Your task to perform on an android device: turn on data saver in the chrome app Image 0: 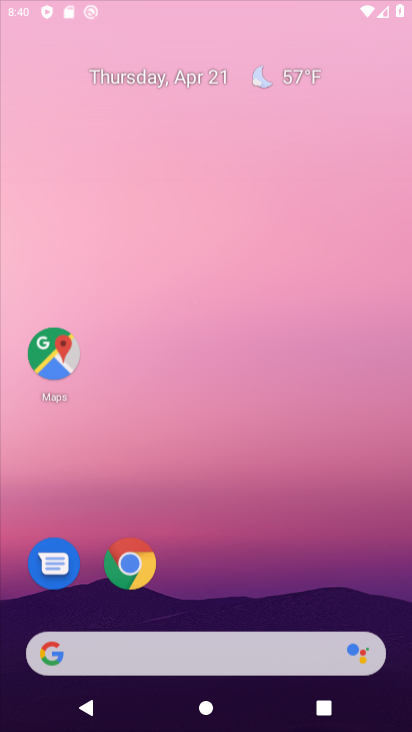
Step 0: drag from (212, 597) to (174, 6)
Your task to perform on an android device: turn on data saver in the chrome app Image 1: 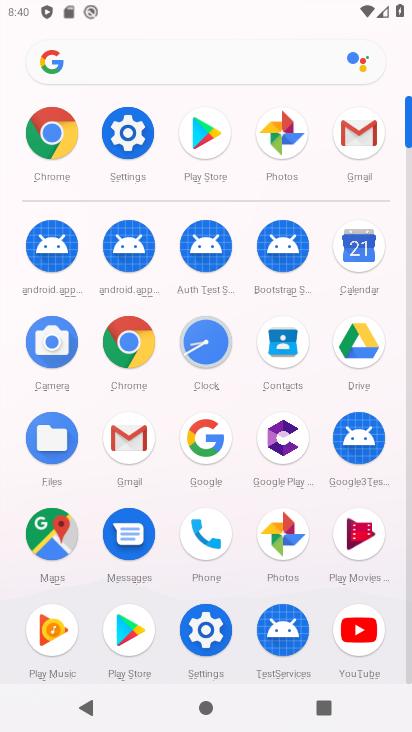
Step 1: click (122, 356)
Your task to perform on an android device: turn on data saver in the chrome app Image 2: 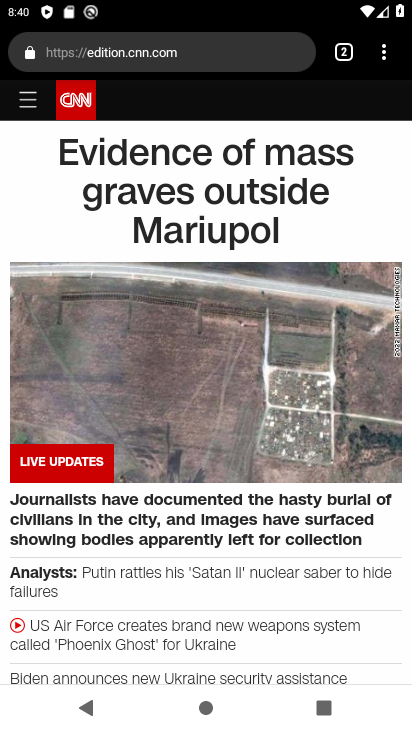
Step 2: drag from (383, 56) to (201, 605)
Your task to perform on an android device: turn on data saver in the chrome app Image 3: 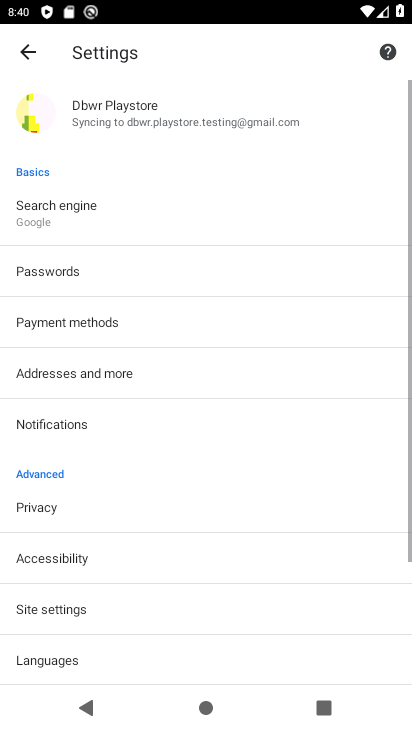
Step 3: drag from (70, 644) to (44, 380)
Your task to perform on an android device: turn on data saver in the chrome app Image 4: 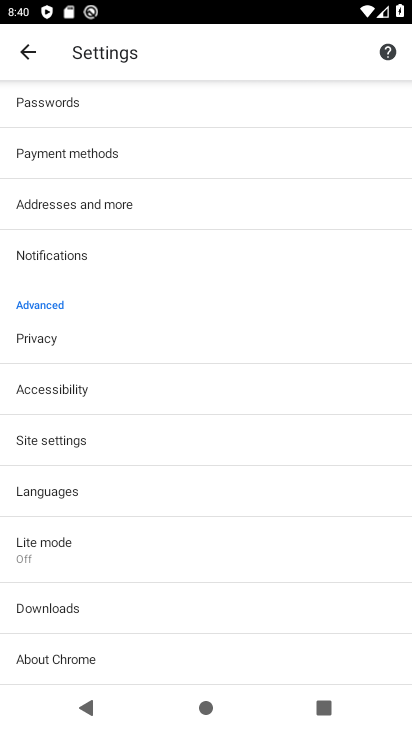
Step 4: click (45, 544)
Your task to perform on an android device: turn on data saver in the chrome app Image 5: 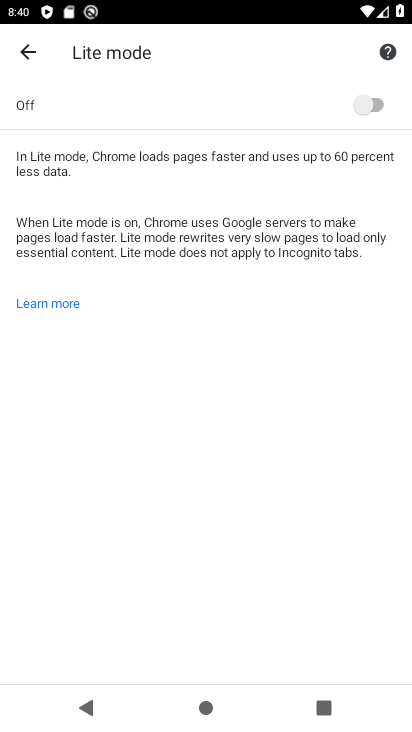
Step 5: click (368, 101)
Your task to perform on an android device: turn on data saver in the chrome app Image 6: 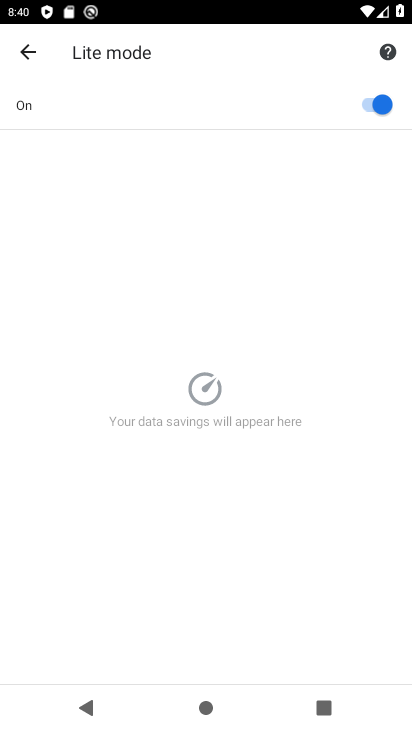
Step 6: task complete